Your task to perform on an android device: Search for "razer kraken" on ebay, select the first entry, and add it to the cart. Image 0: 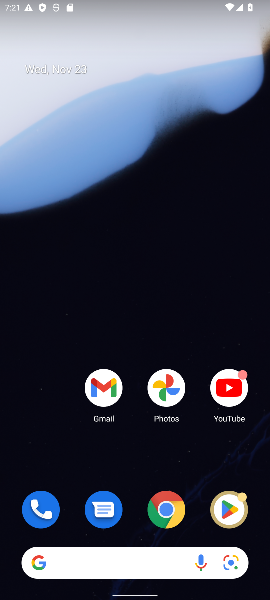
Step 0: click (166, 504)
Your task to perform on an android device: Search for "razer kraken" on ebay, select the first entry, and add it to the cart. Image 1: 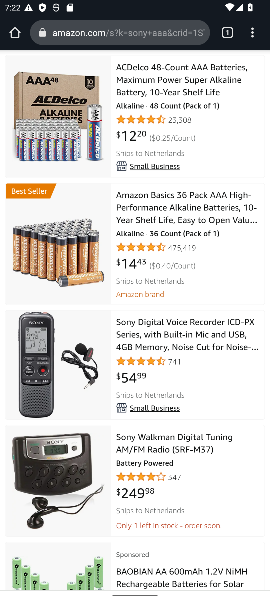
Step 1: click (119, 35)
Your task to perform on an android device: Search for "razer kraken" on ebay, select the first entry, and add it to the cart. Image 2: 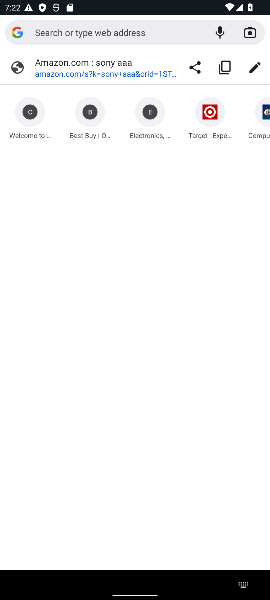
Step 2: type "ebay"
Your task to perform on an android device: Search for "razer kraken" on ebay, select the first entry, and add it to the cart. Image 3: 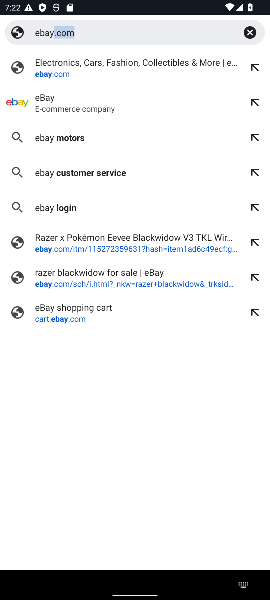
Step 3: click (119, 72)
Your task to perform on an android device: Search for "razer kraken" on ebay, select the first entry, and add it to the cart. Image 4: 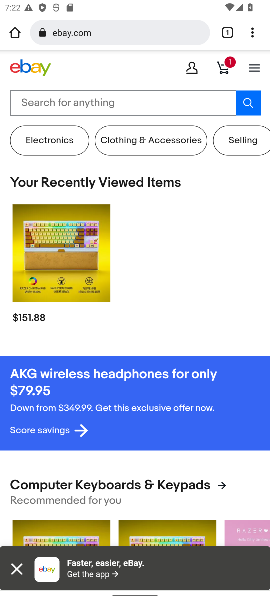
Step 4: click (126, 98)
Your task to perform on an android device: Search for "razer kraken" on ebay, select the first entry, and add it to the cart. Image 5: 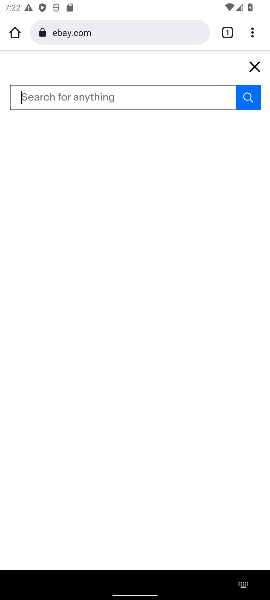
Step 5: type "razer kraken"
Your task to perform on an android device: Search for "razer kraken" on ebay, select the first entry, and add it to the cart. Image 6: 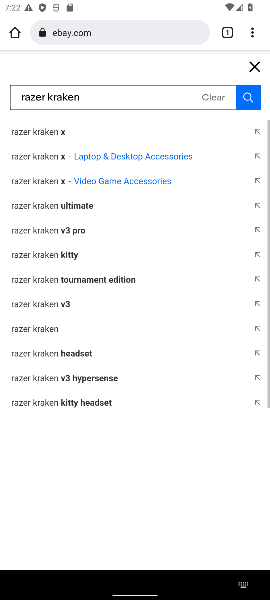
Step 6: press enter
Your task to perform on an android device: Search for "razer kraken" on ebay, select the first entry, and add it to the cart. Image 7: 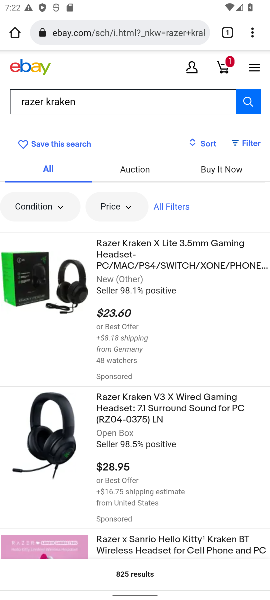
Step 7: click (136, 285)
Your task to perform on an android device: Search for "razer kraken" on ebay, select the first entry, and add it to the cart. Image 8: 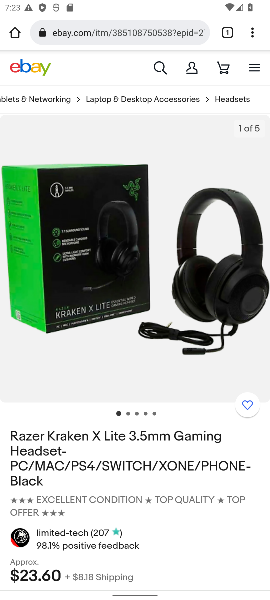
Step 8: drag from (158, 424) to (136, 204)
Your task to perform on an android device: Search for "razer kraken" on ebay, select the first entry, and add it to the cart. Image 9: 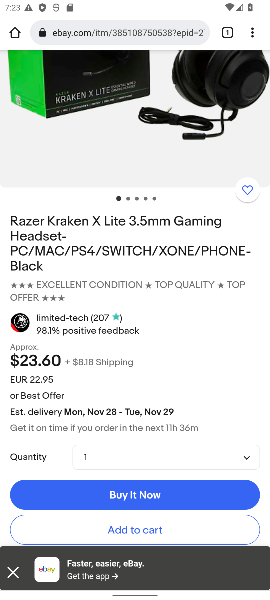
Step 9: click (164, 523)
Your task to perform on an android device: Search for "razer kraken" on ebay, select the first entry, and add it to the cart. Image 10: 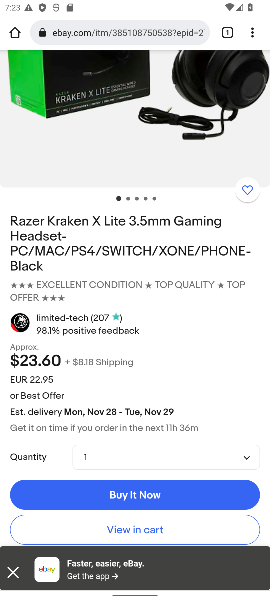
Step 10: task complete